Your task to perform on an android device: View the shopping cart on walmart.com. Add "panasonic triple a" to the cart on walmart.com, then select checkout. Image 0: 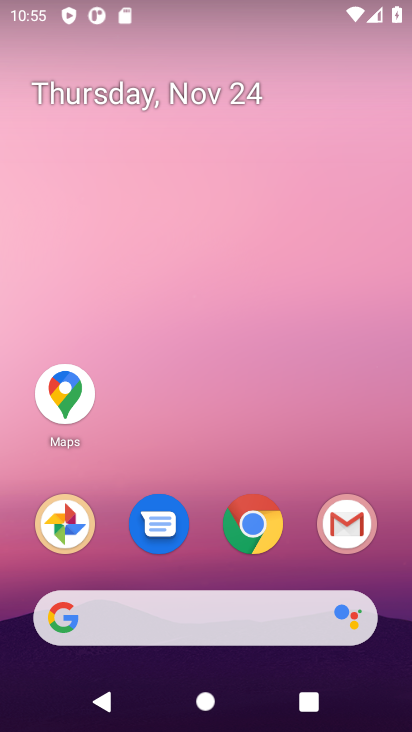
Step 0: click (256, 525)
Your task to perform on an android device: View the shopping cart on walmart.com. Add "panasonic triple a" to the cart on walmart.com, then select checkout. Image 1: 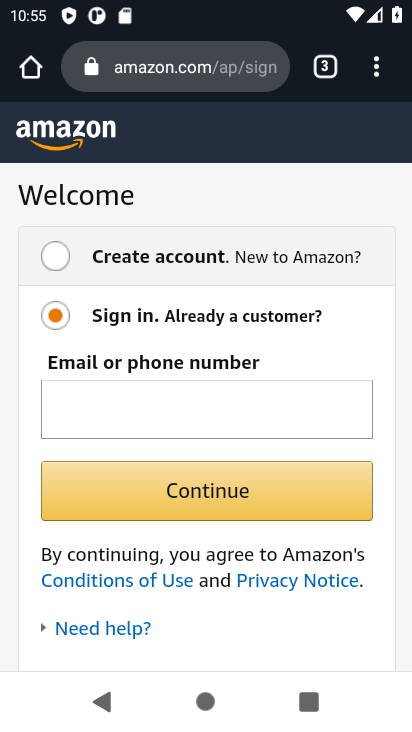
Step 1: click (148, 72)
Your task to perform on an android device: View the shopping cart on walmart.com. Add "panasonic triple a" to the cart on walmart.com, then select checkout. Image 2: 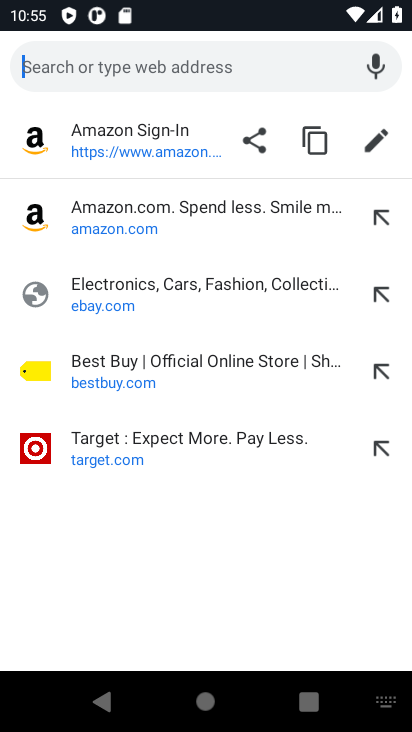
Step 2: type "walmart.com"
Your task to perform on an android device: View the shopping cart on walmart.com. Add "panasonic triple a" to the cart on walmart.com, then select checkout. Image 3: 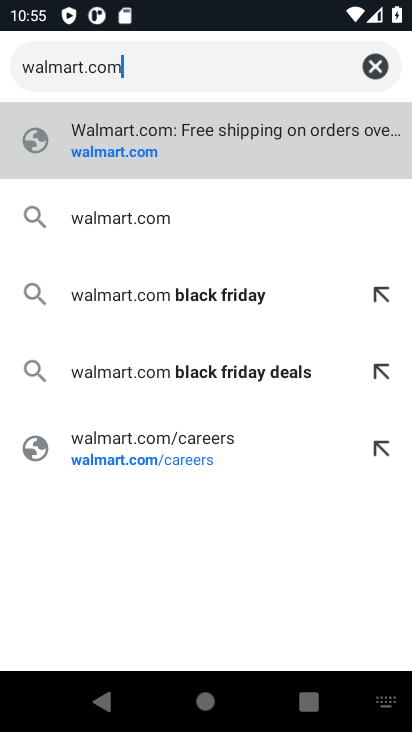
Step 3: click (104, 149)
Your task to perform on an android device: View the shopping cart on walmart.com. Add "panasonic triple a" to the cart on walmart.com, then select checkout. Image 4: 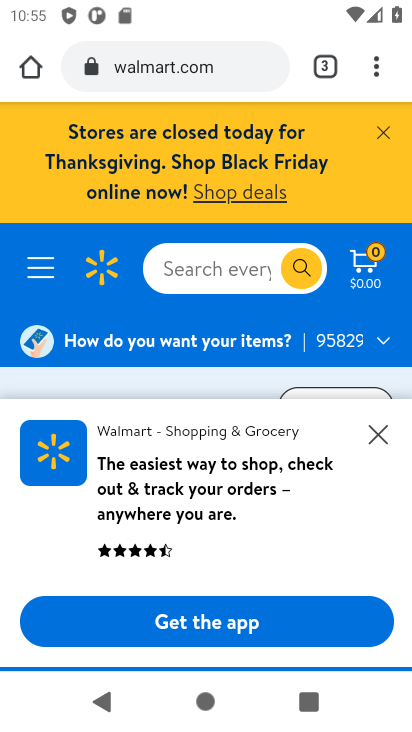
Step 4: click (367, 273)
Your task to perform on an android device: View the shopping cart on walmart.com. Add "panasonic triple a" to the cart on walmart.com, then select checkout. Image 5: 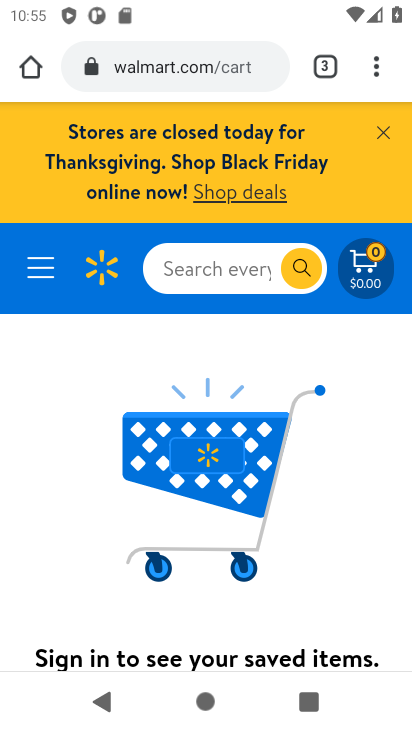
Step 5: drag from (171, 572) to (183, 310)
Your task to perform on an android device: View the shopping cart on walmart.com. Add "panasonic triple a" to the cart on walmart.com, then select checkout. Image 6: 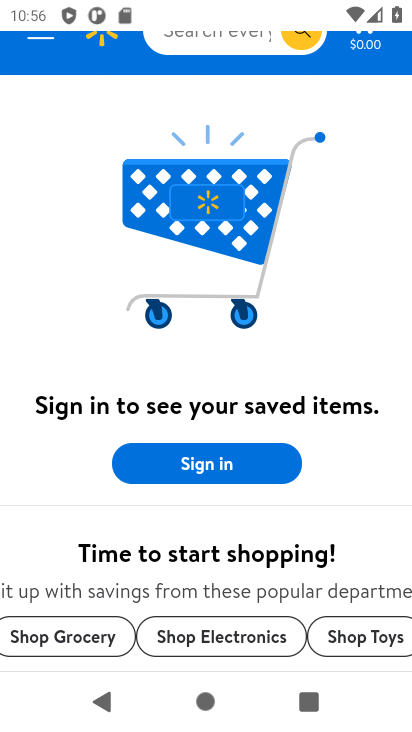
Step 6: drag from (328, 228) to (317, 486)
Your task to perform on an android device: View the shopping cart on walmart.com. Add "panasonic triple a" to the cart on walmart.com, then select checkout. Image 7: 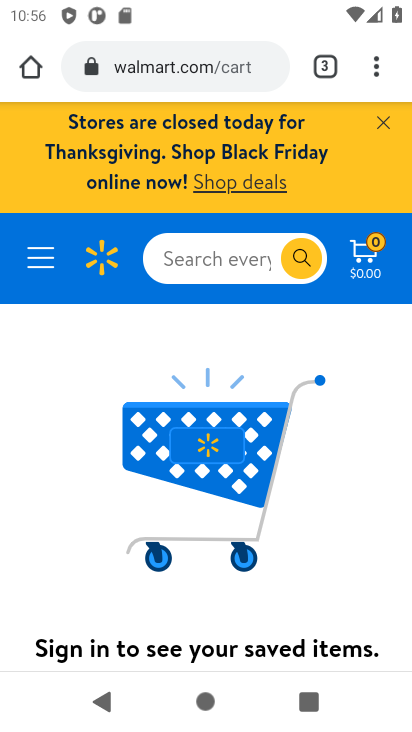
Step 7: click (202, 266)
Your task to perform on an android device: View the shopping cart on walmart.com. Add "panasonic triple a" to the cart on walmart.com, then select checkout. Image 8: 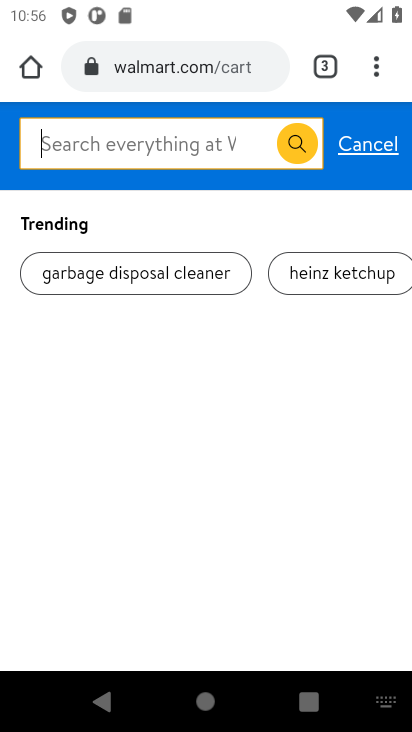
Step 8: type "panasonic triple a"
Your task to perform on an android device: View the shopping cart on walmart.com. Add "panasonic triple a" to the cart on walmart.com, then select checkout. Image 9: 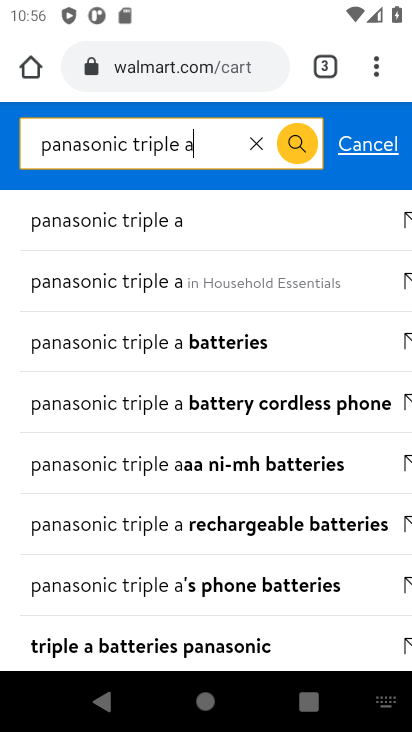
Step 9: click (109, 229)
Your task to perform on an android device: View the shopping cart on walmart.com. Add "panasonic triple a" to the cart on walmart.com, then select checkout. Image 10: 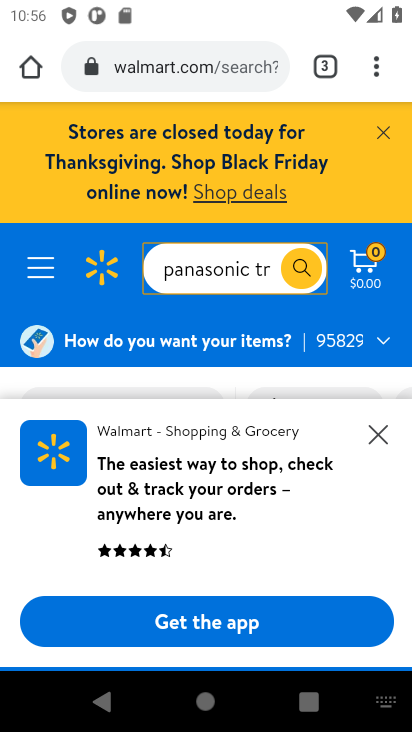
Step 10: click (377, 434)
Your task to perform on an android device: View the shopping cart on walmart.com. Add "panasonic triple a" to the cart on walmart.com, then select checkout. Image 11: 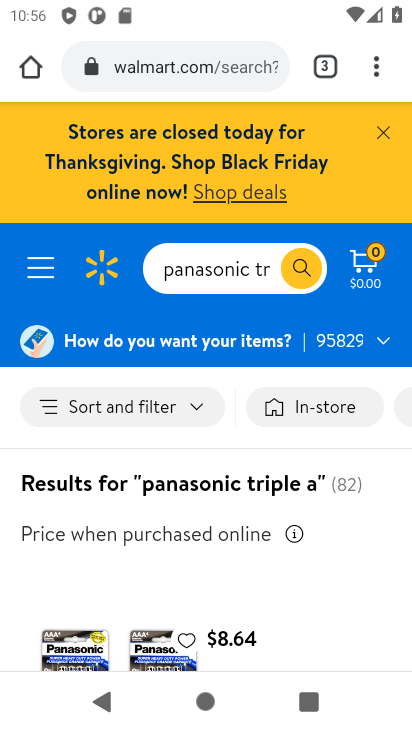
Step 11: drag from (220, 460) to (162, 147)
Your task to perform on an android device: View the shopping cart on walmart.com. Add "panasonic triple a" to the cart on walmart.com, then select checkout. Image 12: 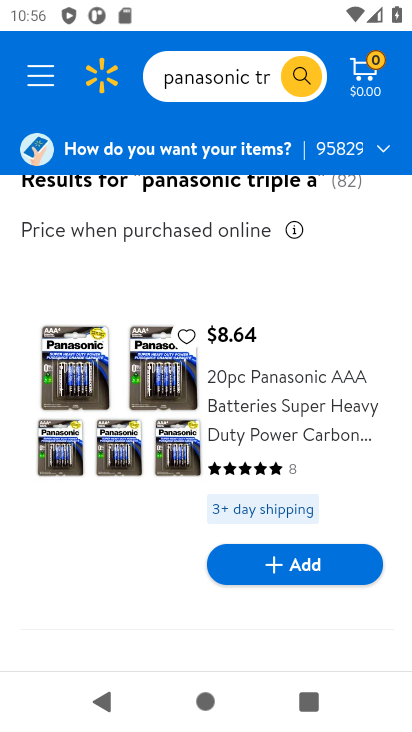
Step 12: click (291, 563)
Your task to perform on an android device: View the shopping cart on walmart.com. Add "panasonic triple a" to the cart on walmart.com, then select checkout. Image 13: 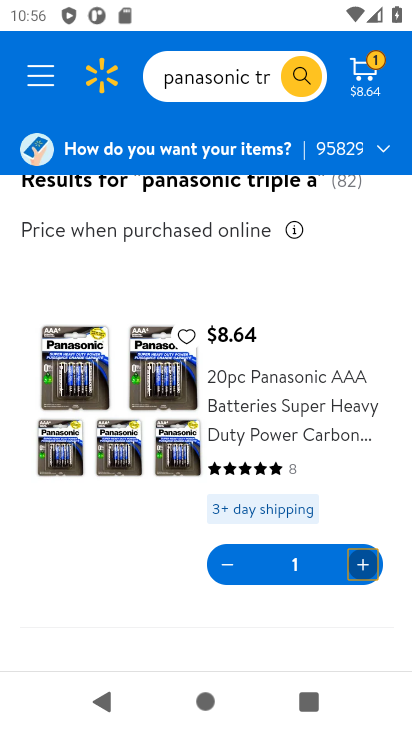
Step 13: click (361, 66)
Your task to perform on an android device: View the shopping cart on walmart.com. Add "panasonic triple a" to the cart on walmart.com, then select checkout. Image 14: 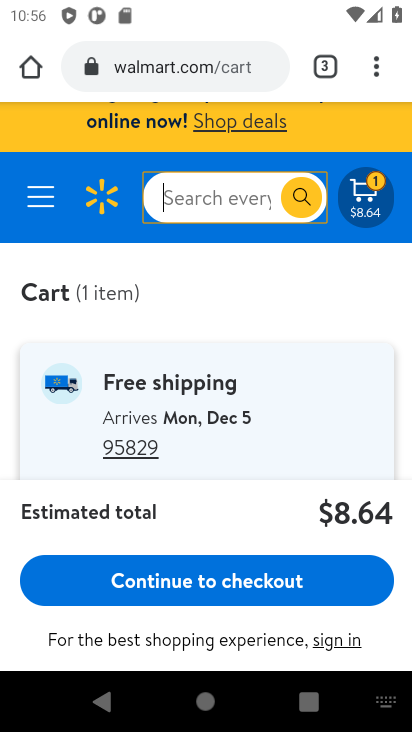
Step 14: click (211, 586)
Your task to perform on an android device: View the shopping cart on walmart.com. Add "panasonic triple a" to the cart on walmart.com, then select checkout. Image 15: 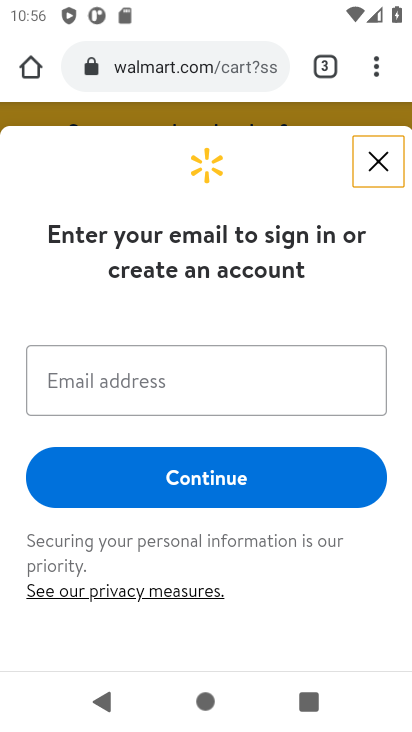
Step 15: task complete